Your task to perform on an android device: Open the calendar and show me this week's events Image 0: 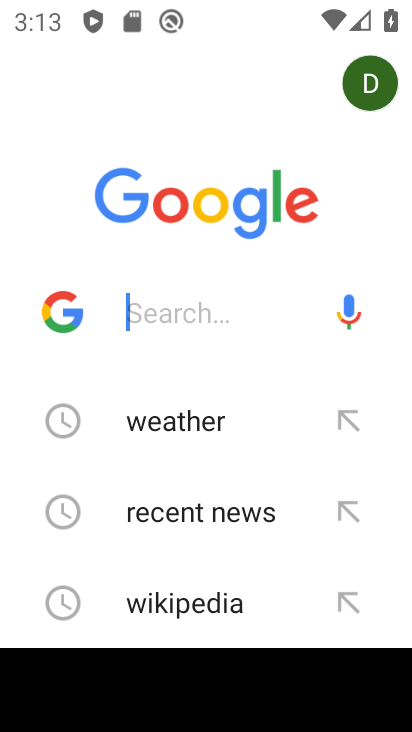
Step 0: press home button
Your task to perform on an android device: Open the calendar and show me this week's events Image 1: 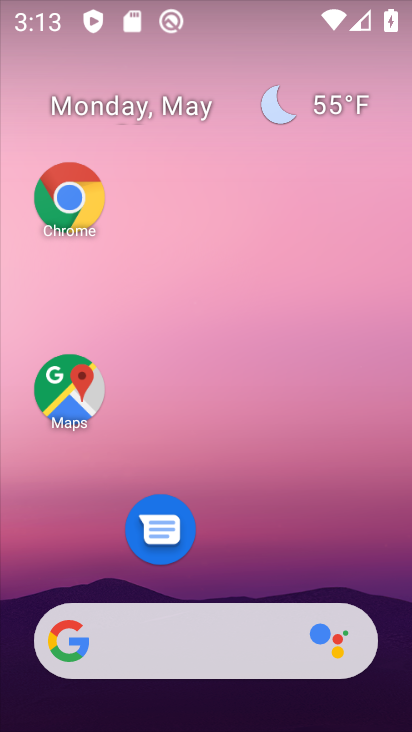
Step 1: drag from (178, 674) to (194, 51)
Your task to perform on an android device: Open the calendar and show me this week's events Image 2: 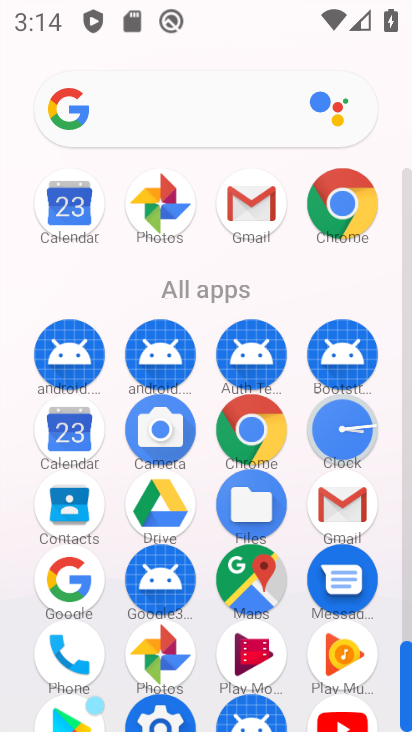
Step 2: click (349, 213)
Your task to perform on an android device: Open the calendar and show me this week's events Image 3: 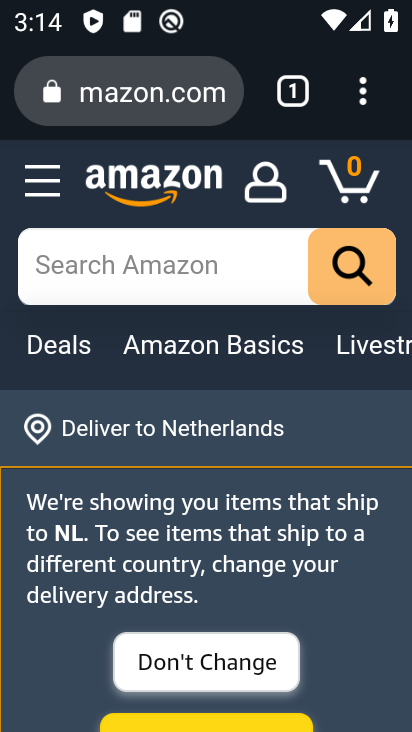
Step 3: press home button
Your task to perform on an android device: Open the calendar and show me this week's events Image 4: 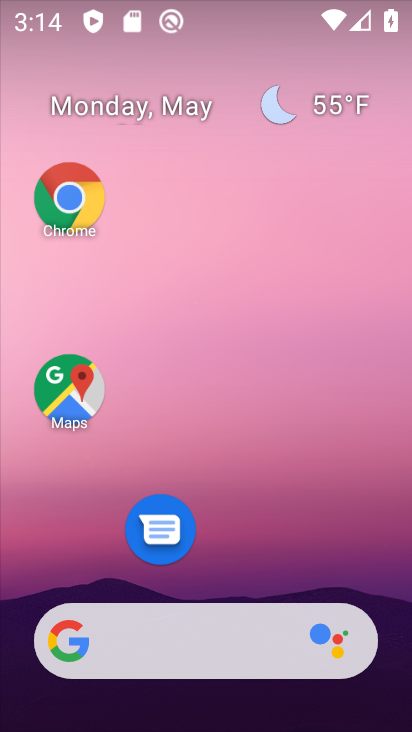
Step 4: drag from (230, 576) to (178, 301)
Your task to perform on an android device: Open the calendar and show me this week's events Image 5: 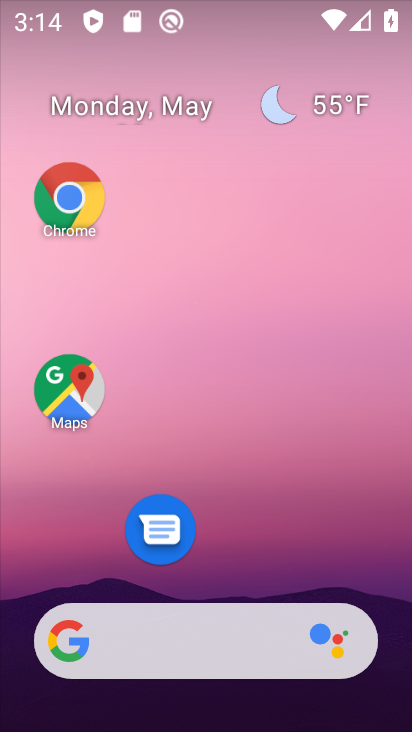
Step 5: drag from (262, 553) to (227, 106)
Your task to perform on an android device: Open the calendar and show me this week's events Image 6: 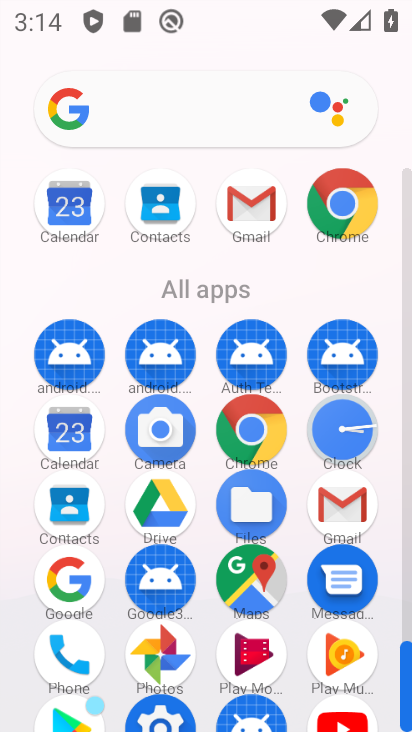
Step 6: drag from (128, 628) to (148, 191)
Your task to perform on an android device: Open the calendar and show me this week's events Image 7: 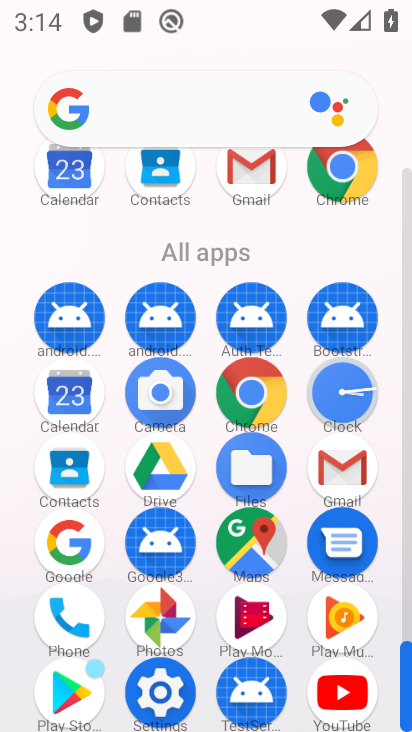
Step 7: drag from (196, 517) to (169, 277)
Your task to perform on an android device: Open the calendar and show me this week's events Image 8: 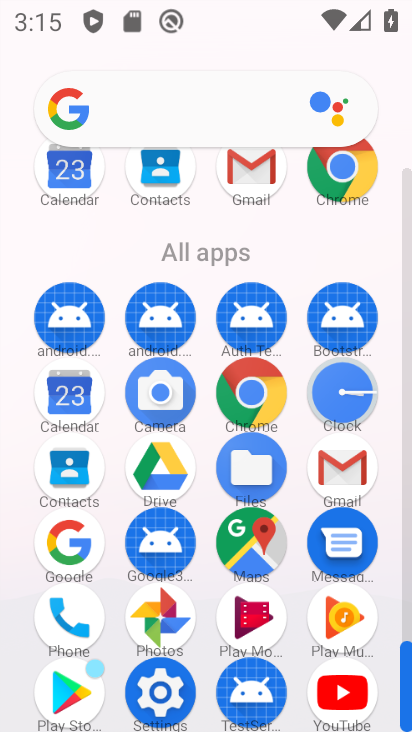
Step 8: click (157, 685)
Your task to perform on an android device: Open the calendar and show me this week's events Image 9: 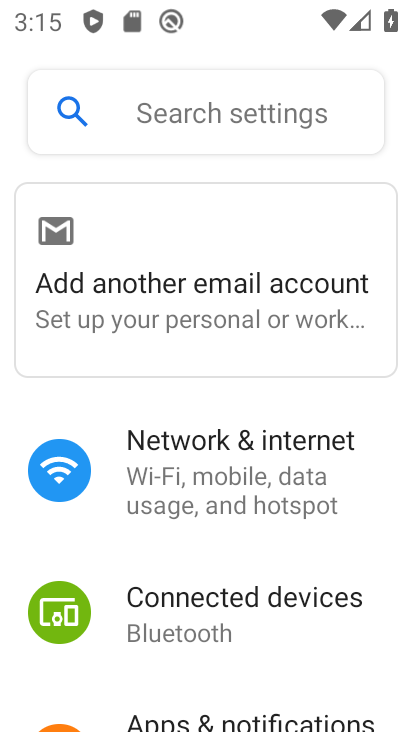
Step 9: press home button
Your task to perform on an android device: Open the calendar and show me this week's events Image 10: 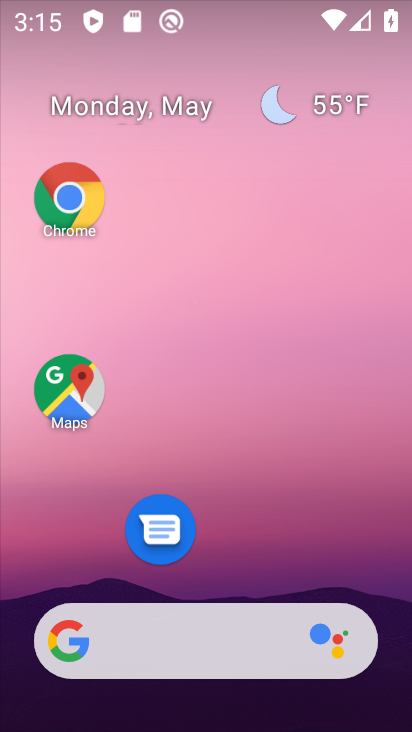
Step 10: drag from (263, 545) to (231, 191)
Your task to perform on an android device: Open the calendar and show me this week's events Image 11: 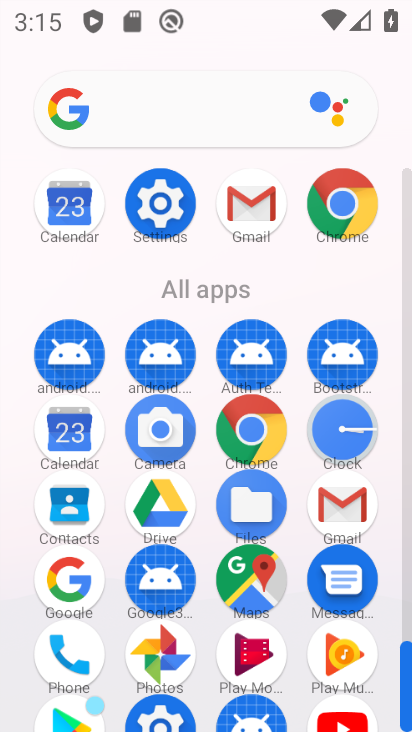
Step 11: click (81, 435)
Your task to perform on an android device: Open the calendar and show me this week's events Image 12: 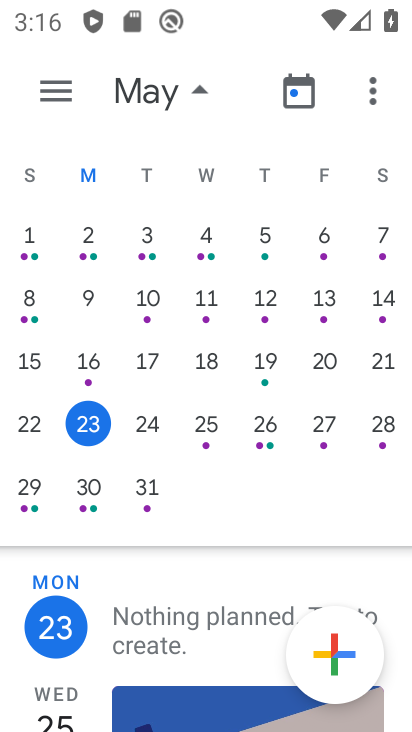
Step 12: click (95, 421)
Your task to perform on an android device: Open the calendar and show me this week's events Image 13: 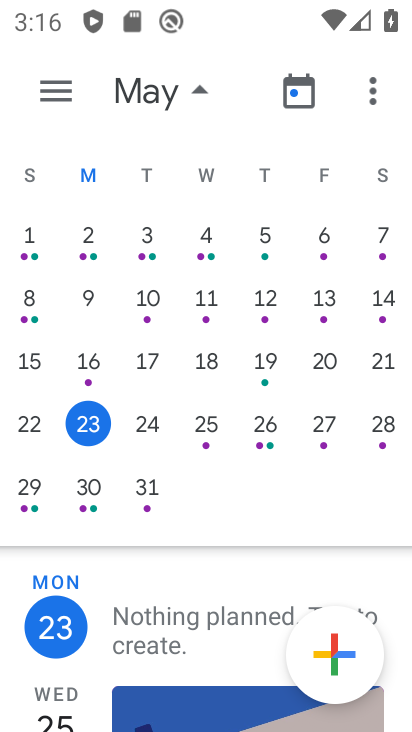
Step 13: task complete